Your task to perform on an android device: Open Youtube and go to the subscriptions tab Image 0: 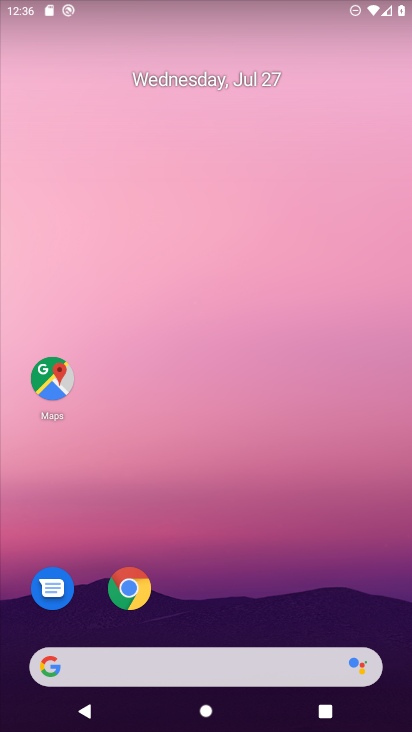
Step 0: drag from (33, 661) to (195, 192)
Your task to perform on an android device: Open Youtube and go to the subscriptions tab Image 1: 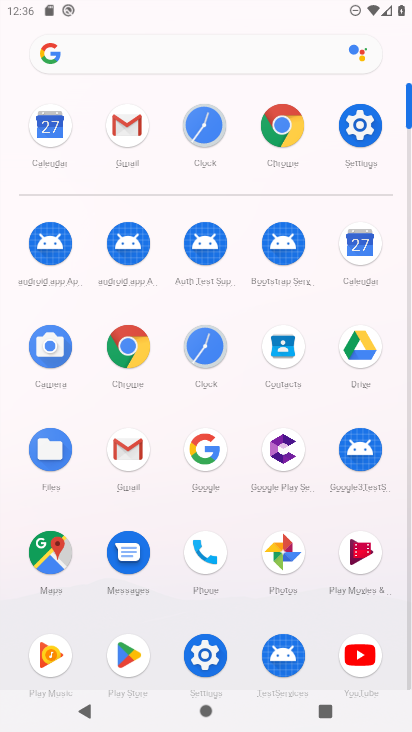
Step 1: click (354, 650)
Your task to perform on an android device: Open Youtube and go to the subscriptions tab Image 2: 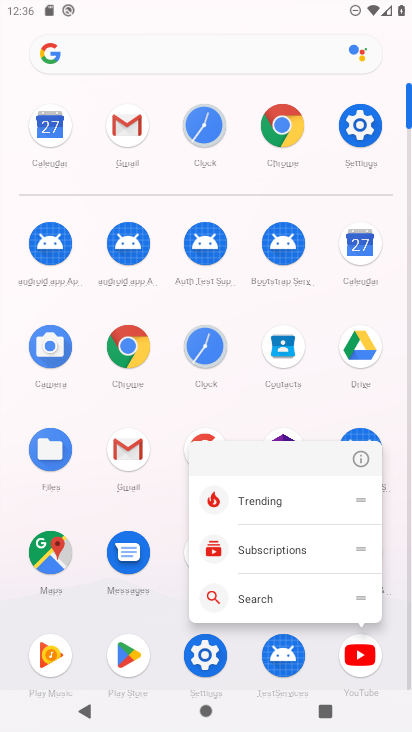
Step 2: click (366, 654)
Your task to perform on an android device: Open Youtube and go to the subscriptions tab Image 3: 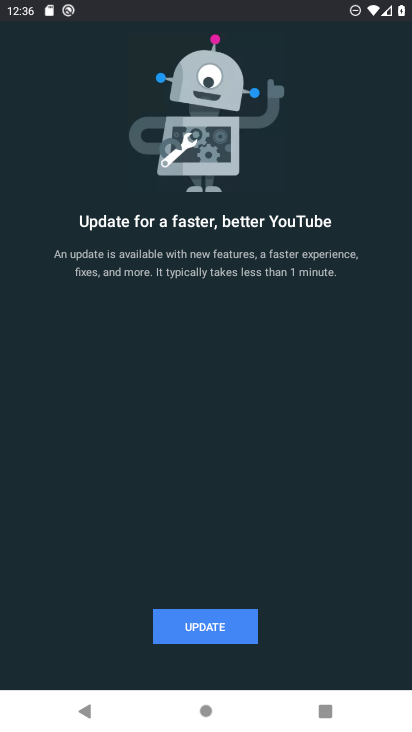
Step 3: click (216, 615)
Your task to perform on an android device: Open Youtube and go to the subscriptions tab Image 4: 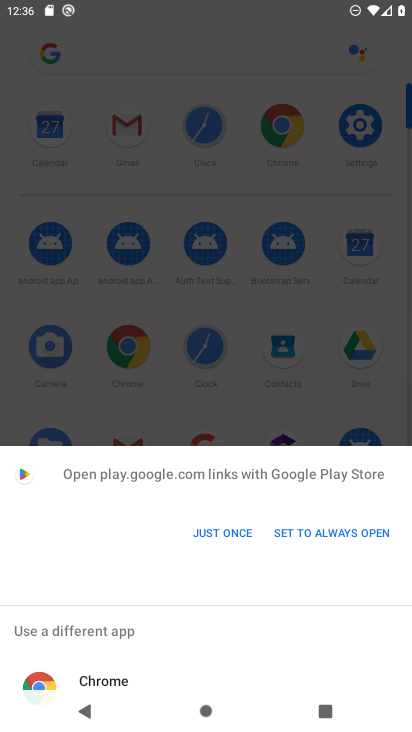
Step 4: click (219, 529)
Your task to perform on an android device: Open Youtube and go to the subscriptions tab Image 5: 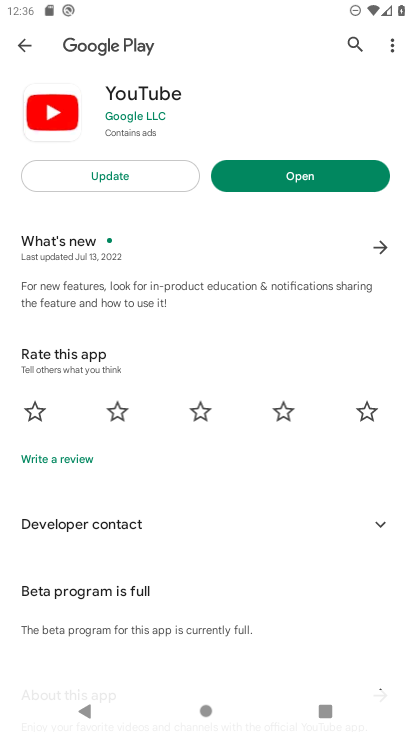
Step 5: click (297, 181)
Your task to perform on an android device: Open Youtube and go to the subscriptions tab Image 6: 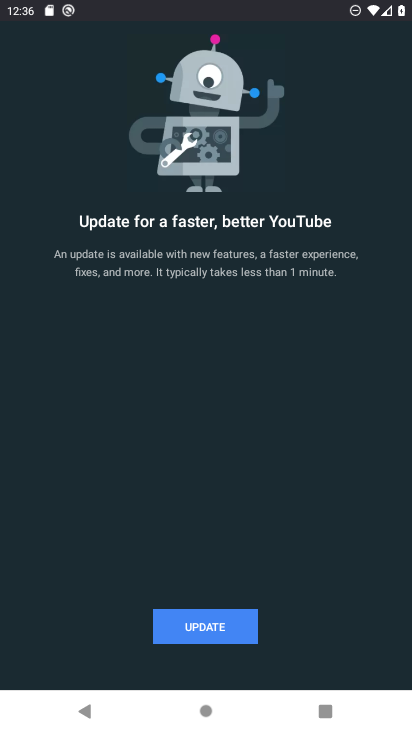
Step 6: task complete